Your task to perform on an android device: What is the news today? Image 0: 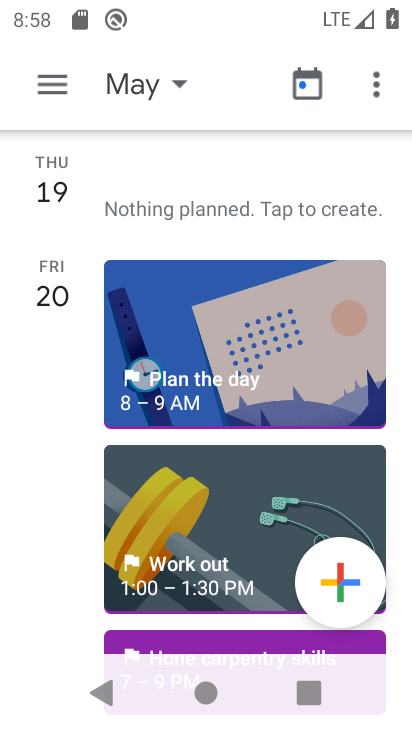
Step 0: press home button
Your task to perform on an android device: What is the news today? Image 1: 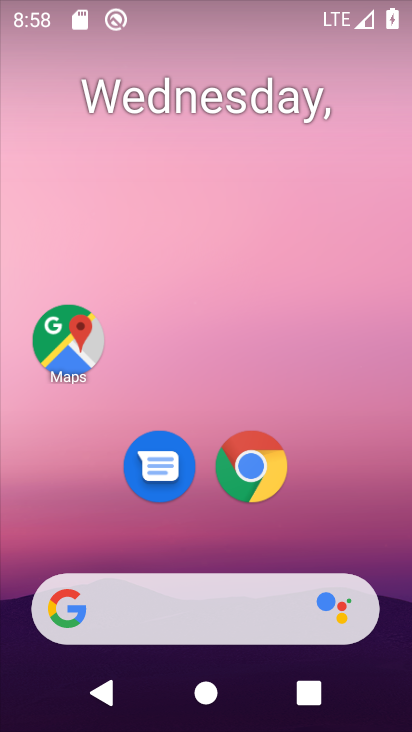
Step 1: task complete